Your task to perform on an android device: choose inbox layout in the gmail app Image 0: 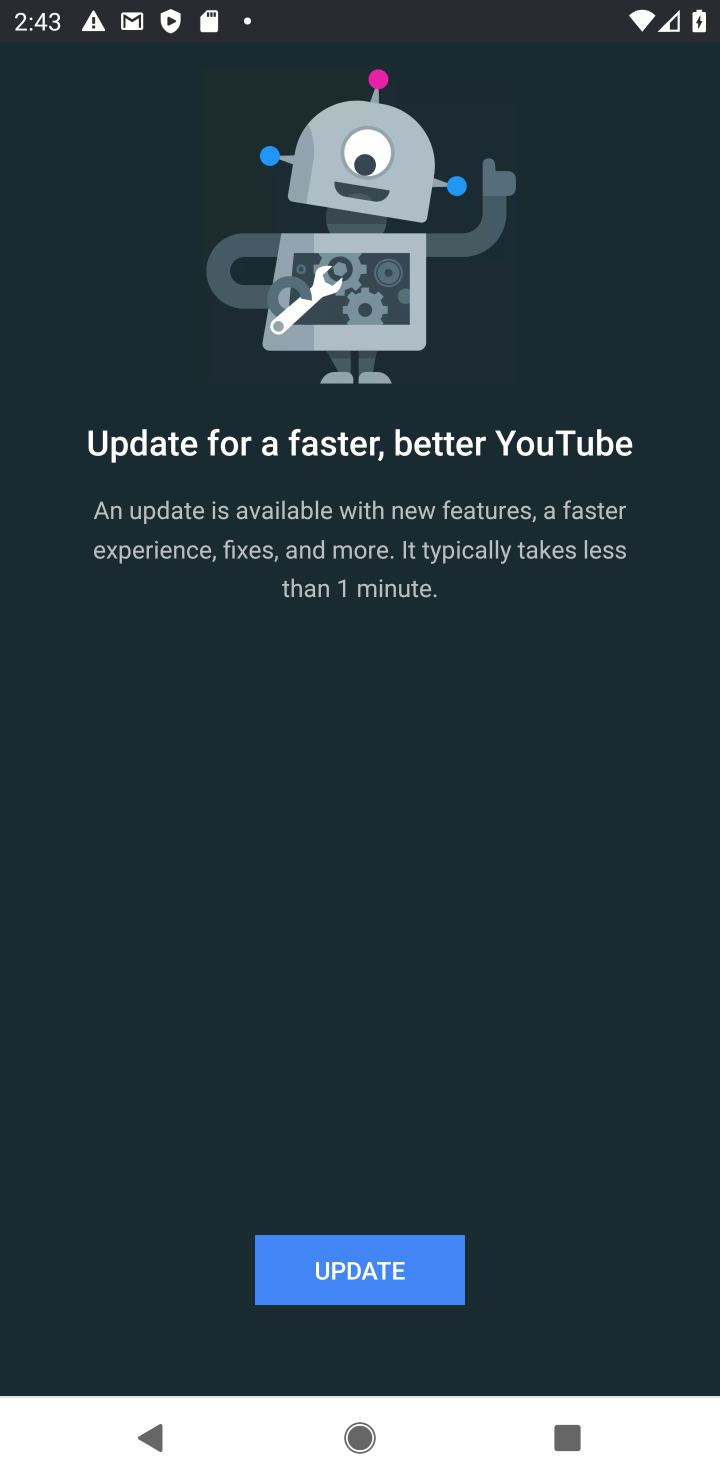
Step 0: press home button
Your task to perform on an android device: choose inbox layout in the gmail app Image 1: 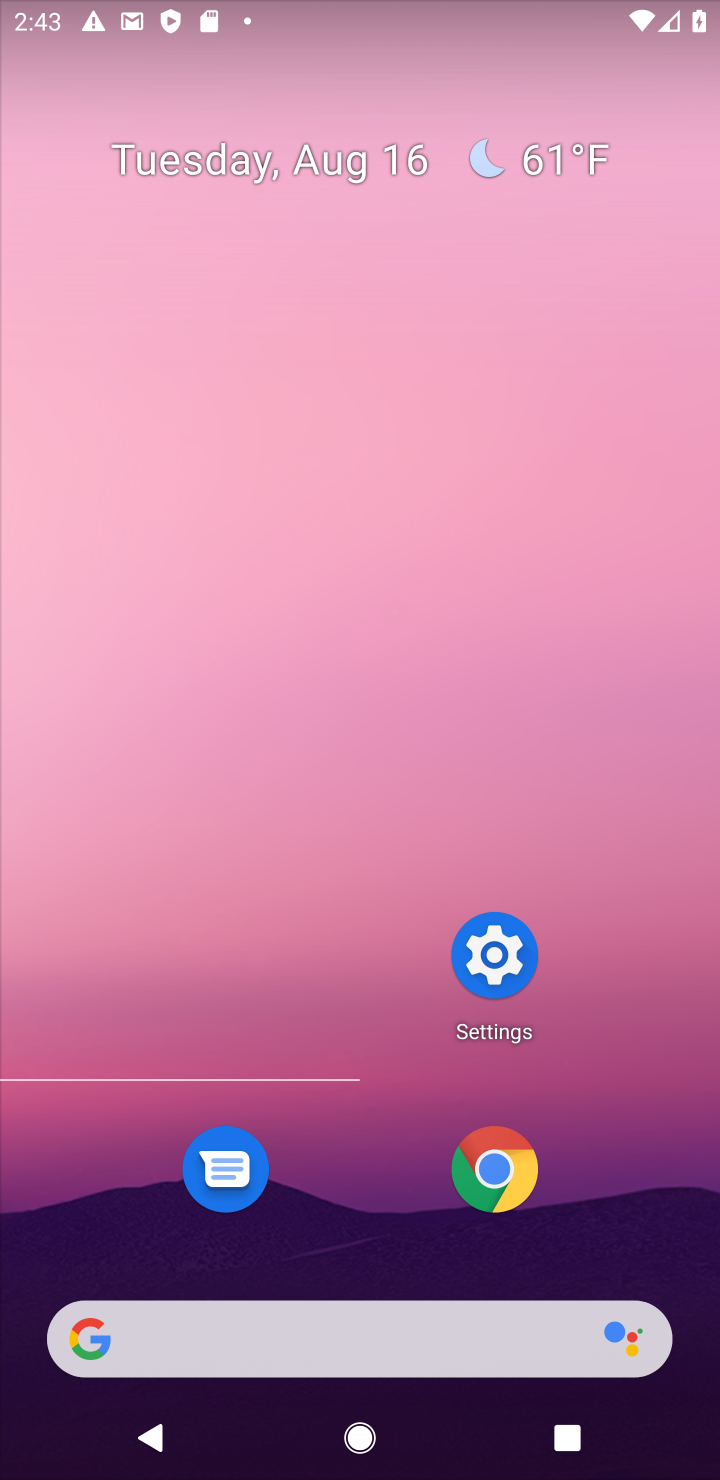
Step 1: drag from (276, 1304) to (564, 56)
Your task to perform on an android device: choose inbox layout in the gmail app Image 2: 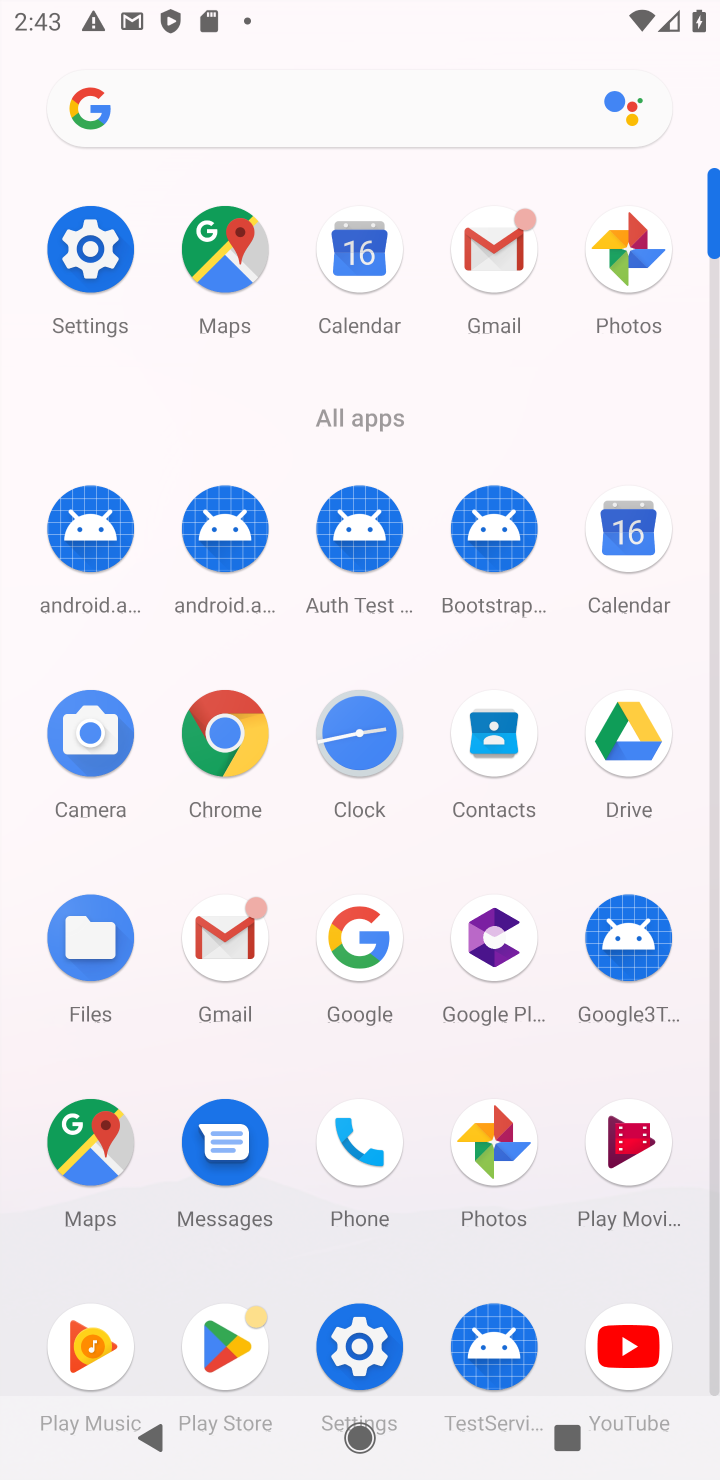
Step 2: click (485, 247)
Your task to perform on an android device: choose inbox layout in the gmail app Image 3: 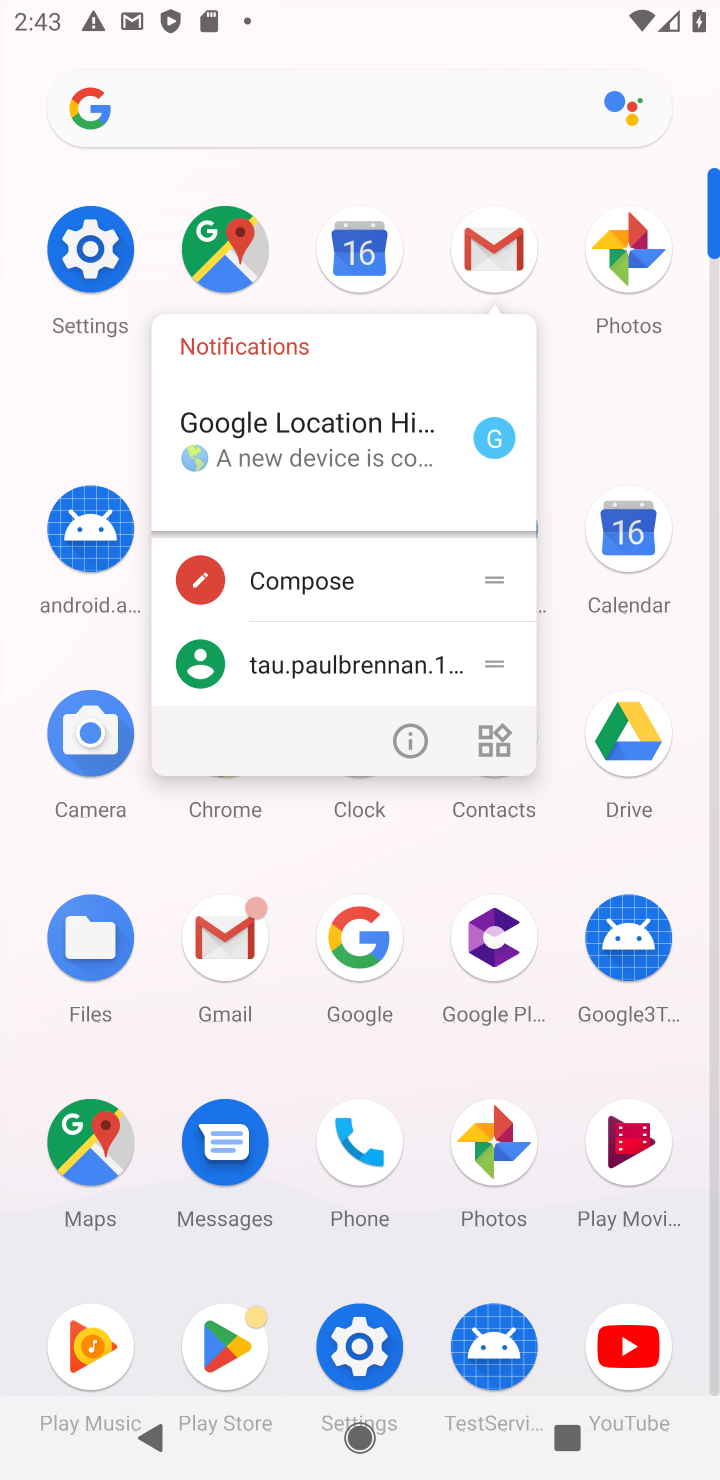
Step 3: click (507, 263)
Your task to perform on an android device: choose inbox layout in the gmail app Image 4: 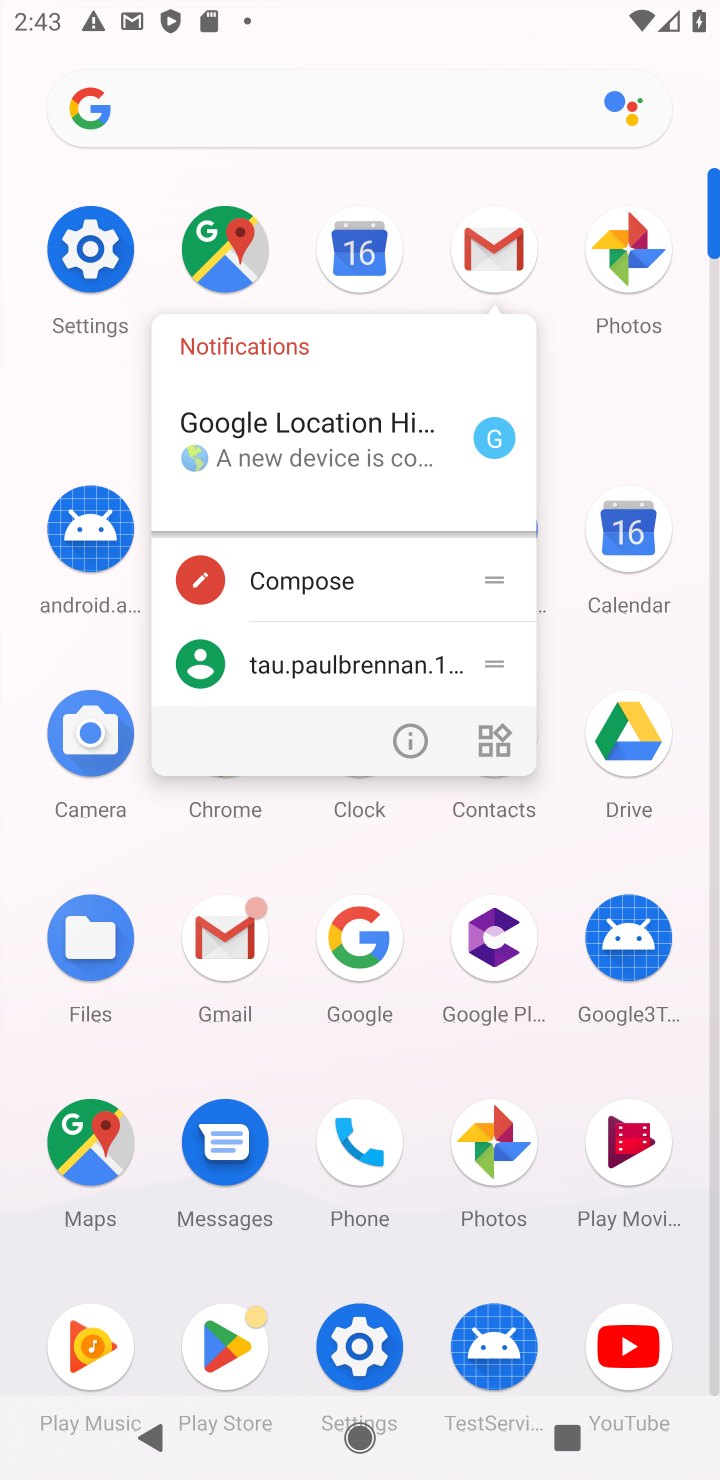
Step 4: click (494, 268)
Your task to perform on an android device: choose inbox layout in the gmail app Image 5: 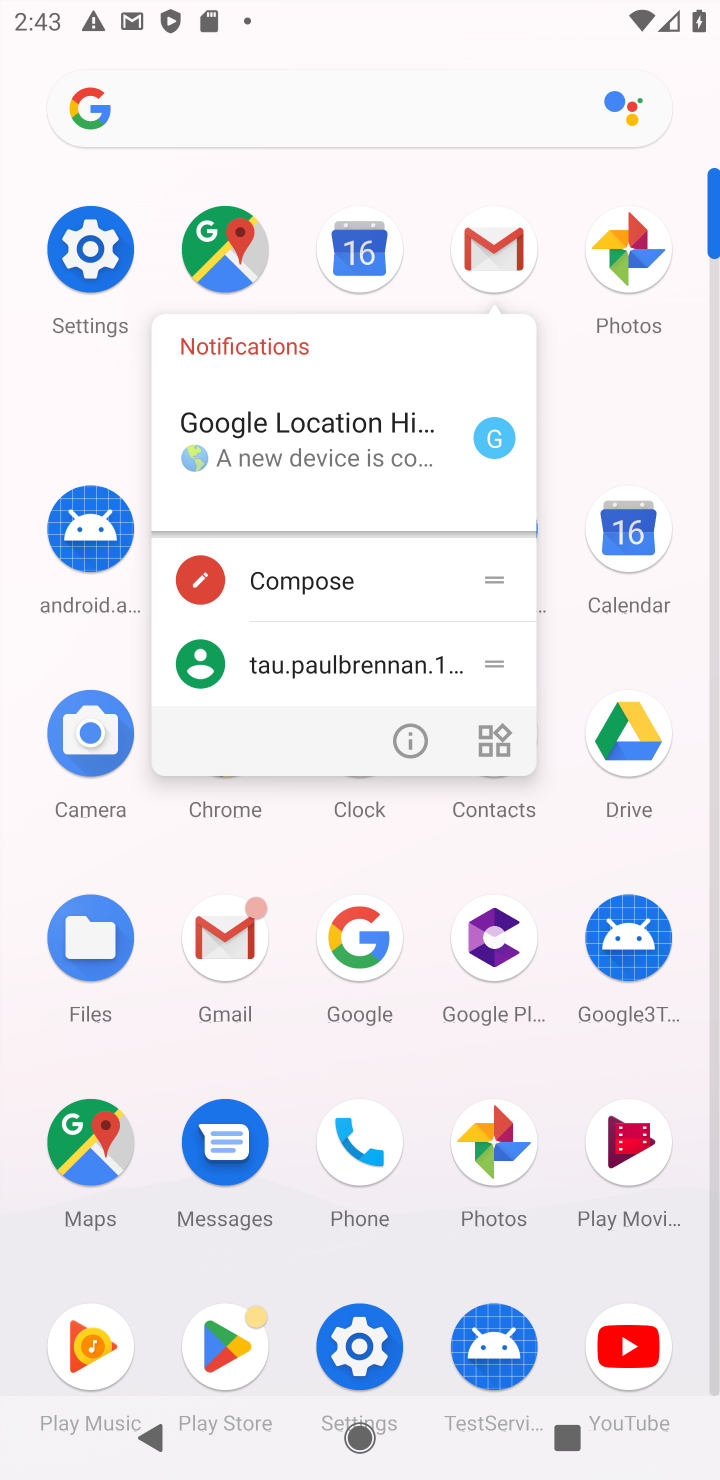
Step 5: click (493, 256)
Your task to perform on an android device: choose inbox layout in the gmail app Image 6: 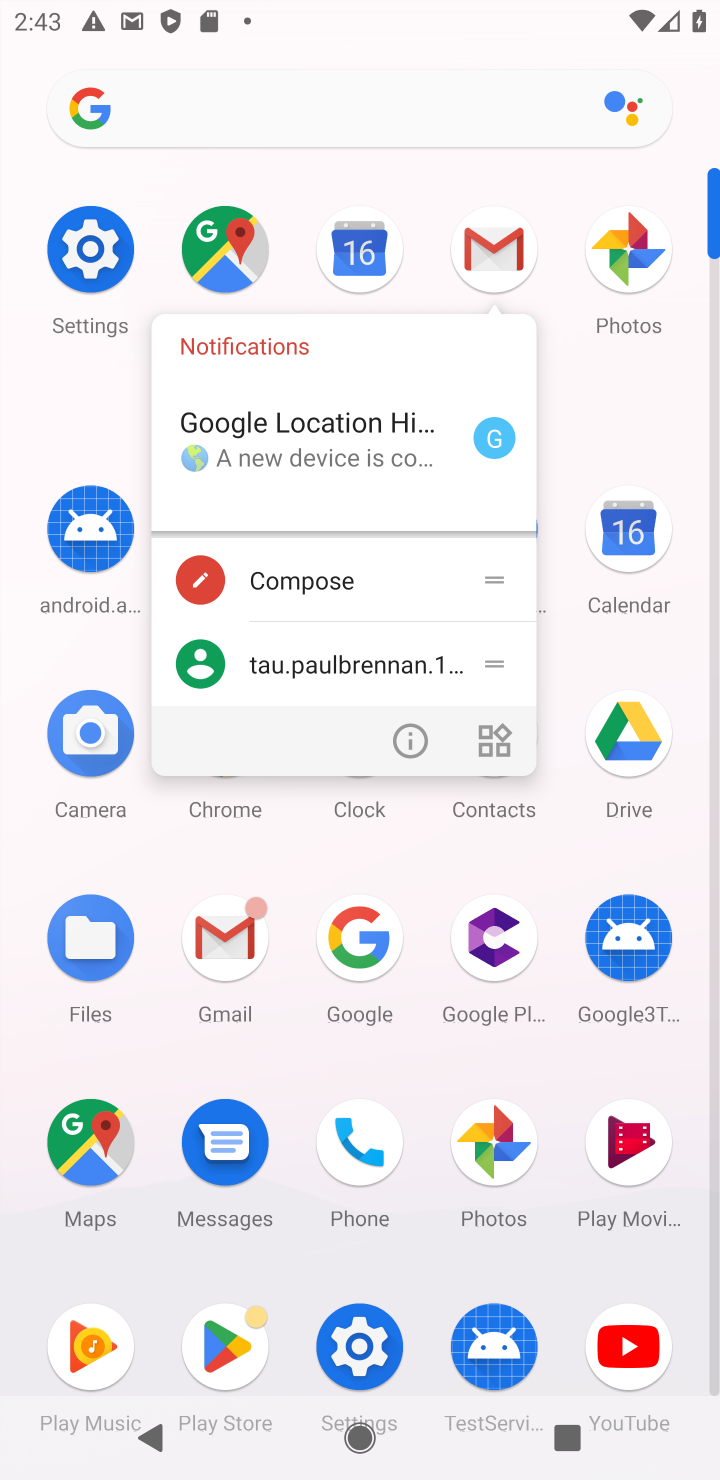
Step 6: click (493, 261)
Your task to perform on an android device: choose inbox layout in the gmail app Image 7: 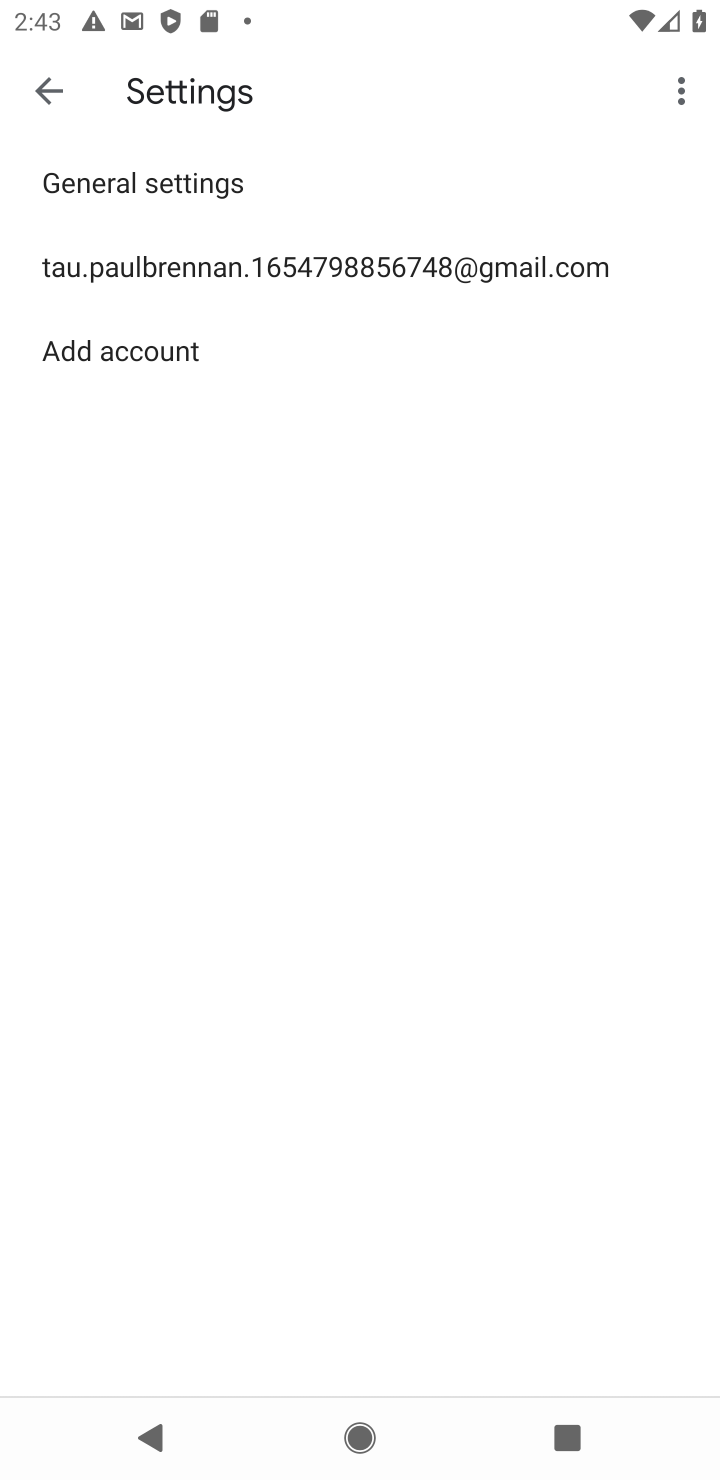
Step 7: click (212, 258)
Your task to perform on an android device: choose inbox layout in the gmail app Image 8: 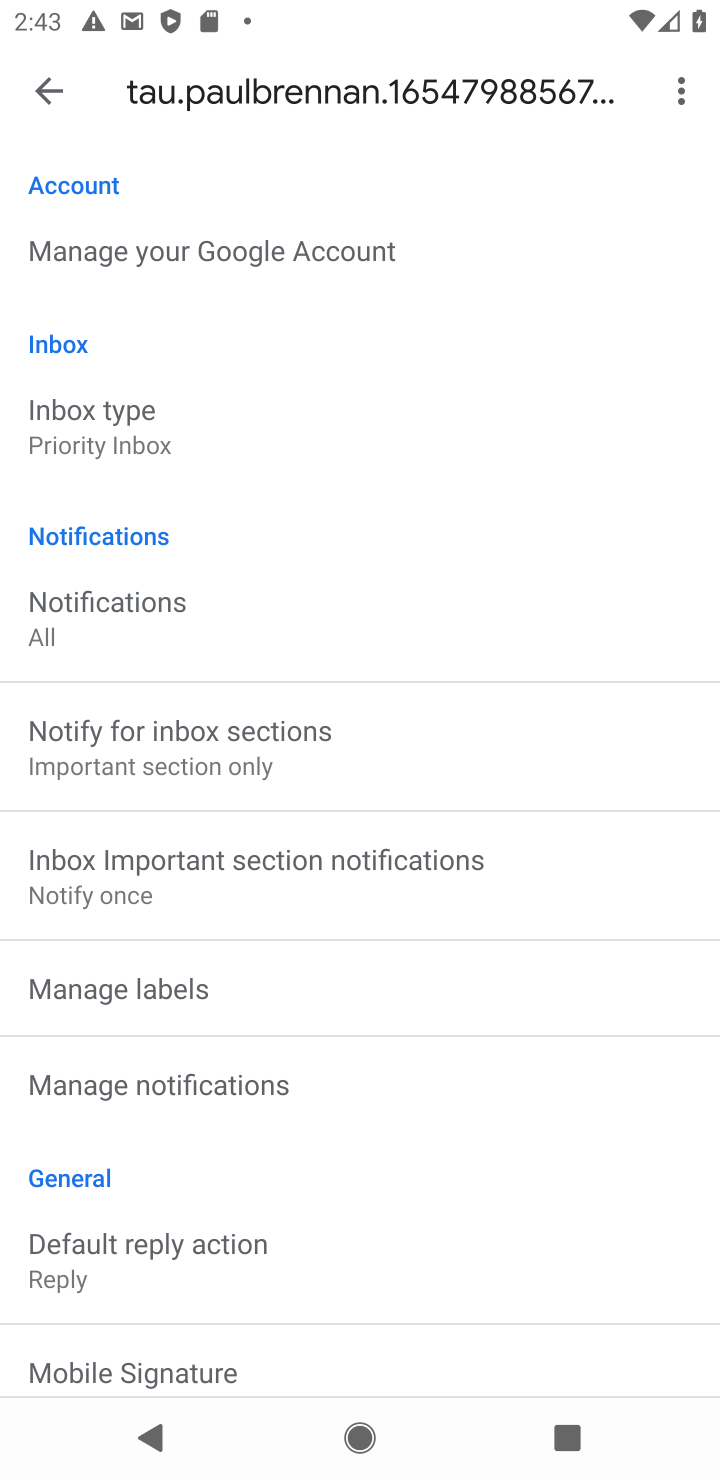
Step 8: click (126, 429)
Your task to perform on an android device: choose inbox layout in the gmail app Image 9: 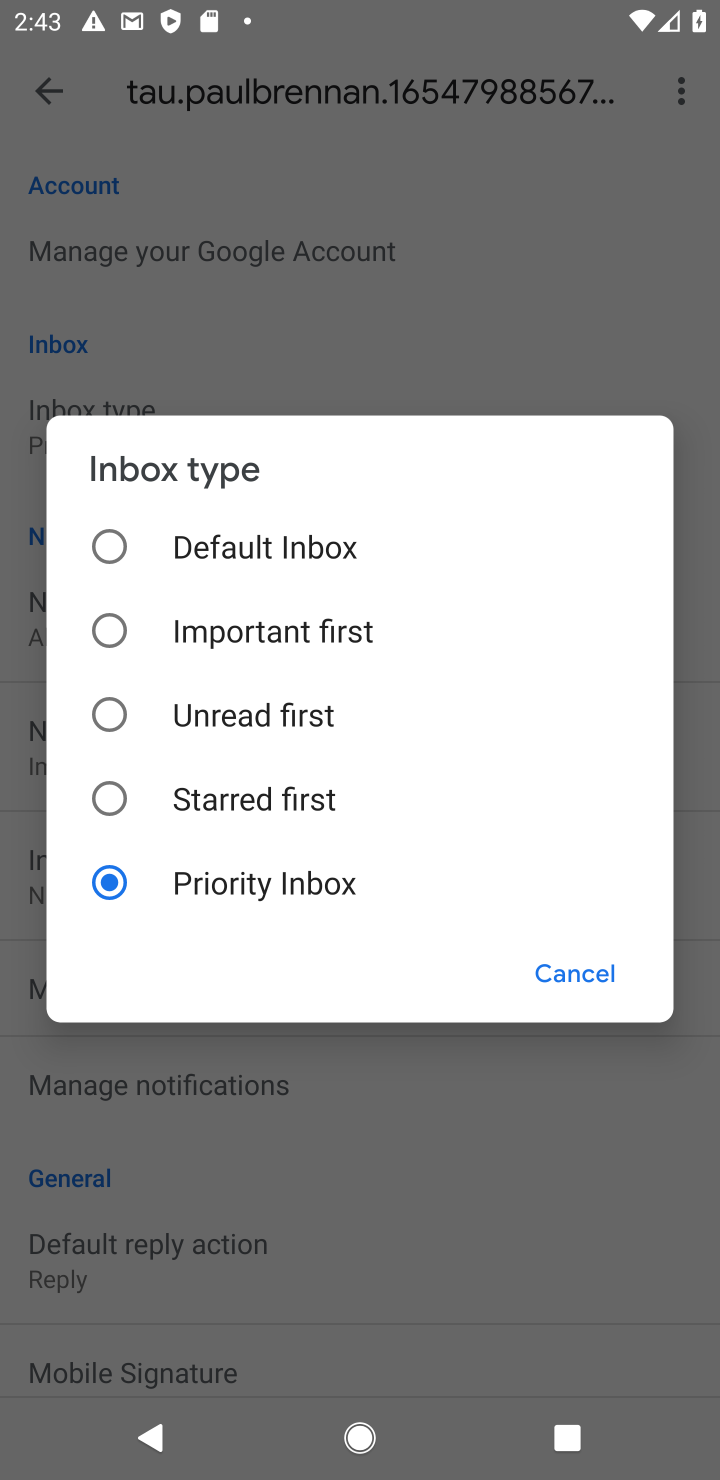
Step 9: click (105, 536)
Your task to perform on an android device: choose inbox layout in the gmail app Image 10: 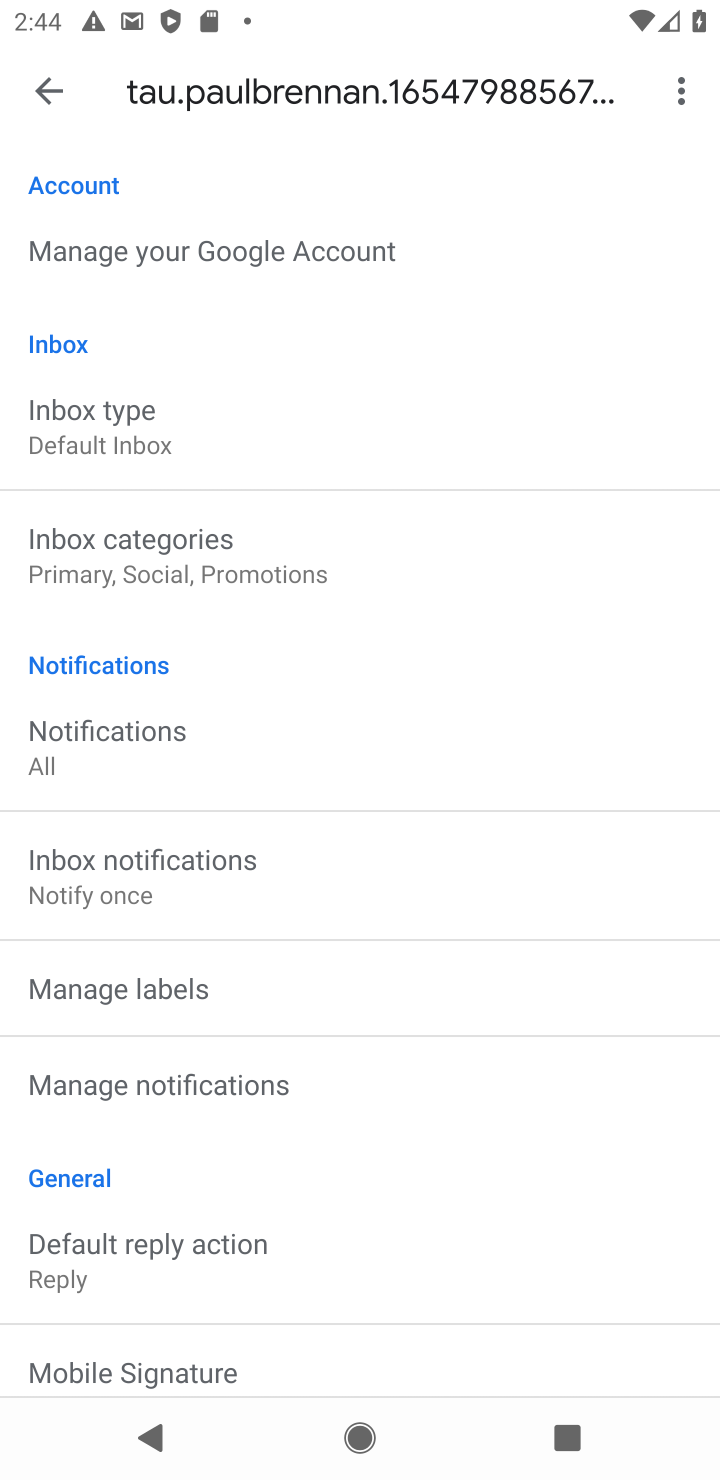
Step 10: task complete